Your task to perform on an android device: turn on data saver in the chrome app Image 0: 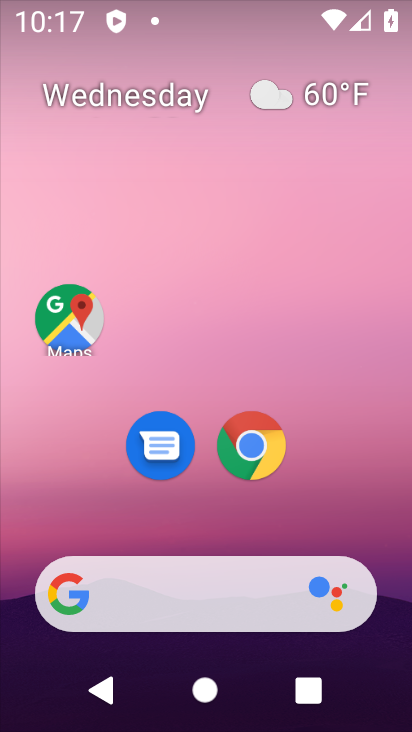
Step 0: click (246, 440)
Your task to perform on an android device: turn on data saver in the chrome app Image 1: 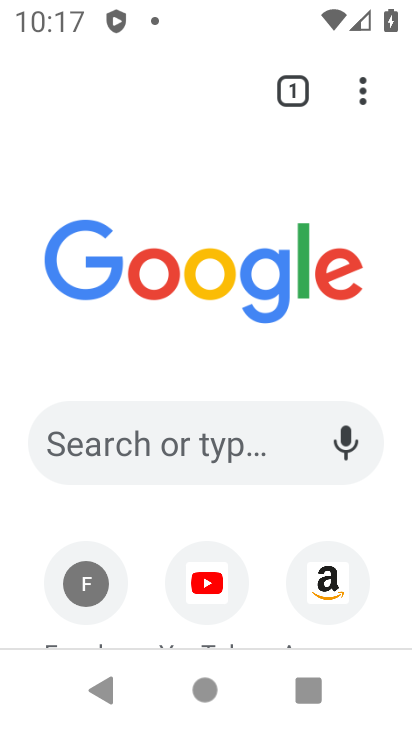
Step 1: drag from (350, 93) to (130, 481)
Your task to perform on an android device: turn on data saver in the chrome app Image 2: 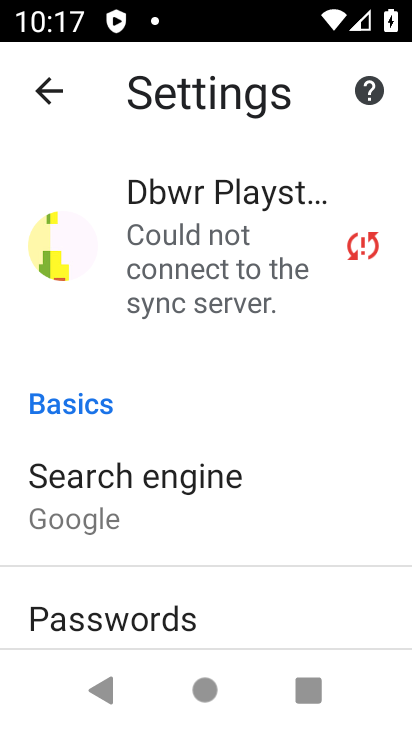
Step 2: drag from (219, 549) to (219, 239)
Your task to perform on an android device: turn on data saver in the chrome app Image 3: 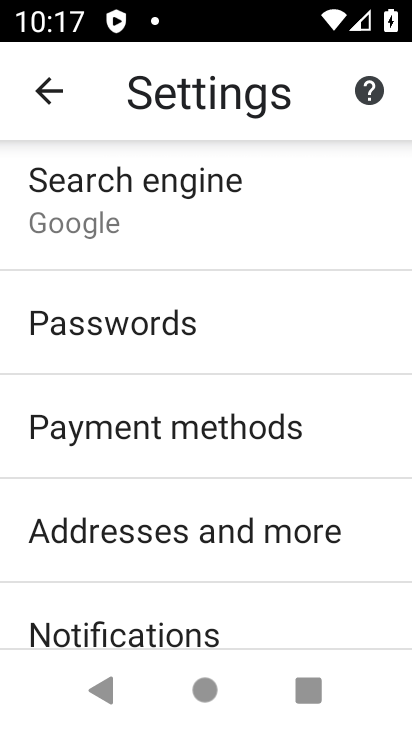
Step 3: drag from (181, 529) to (207, 281)
Your task to perform on an android device: turn on data saver in the chrome app Image 4: 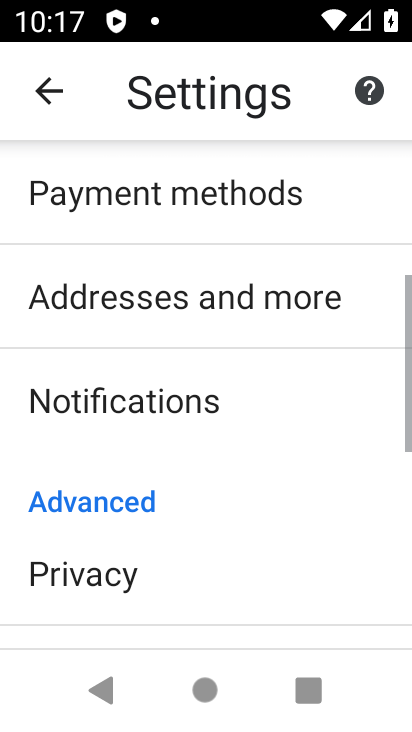
Step 4: drag from (177, 546) to (204, 330)
Your task to perform on an android device: turn on data saver in the chrome app Image 5: 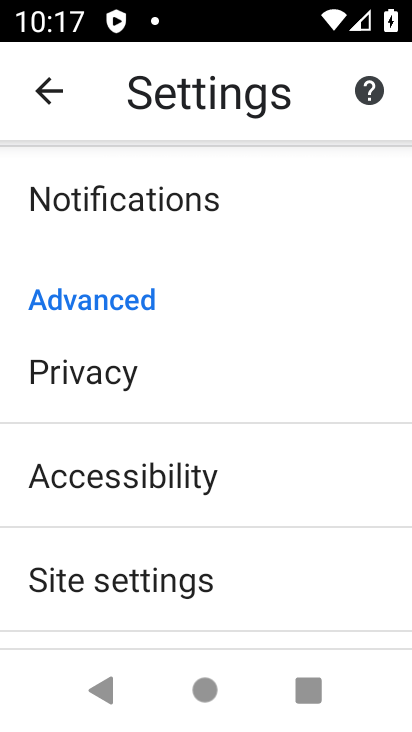
Step 5: drag from (175, 623) to (204, 418)
Your task to perform on an android device: turn on data saver in the chrome app Image 6: 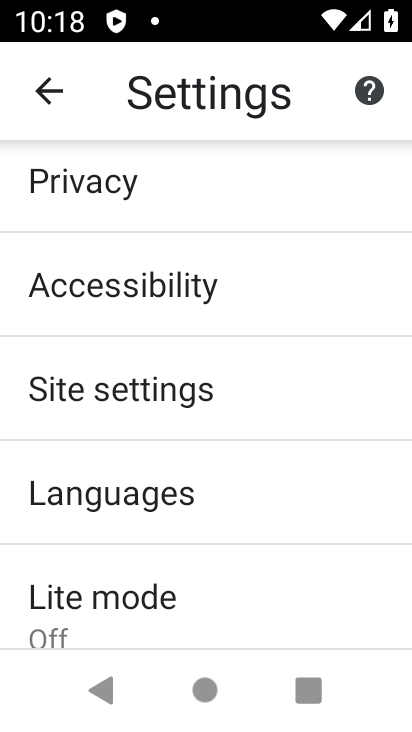
Step 6: click (169, 587)
Your task to perform on an android device: turn on data saver in the chrome app Image 7: 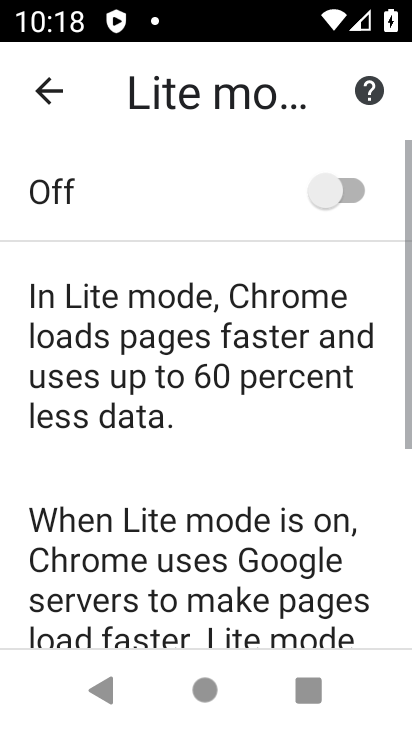
Step 7: click (354, 193)
Your task to perform on an android device: turn on data saver in the chrome app Image 8: 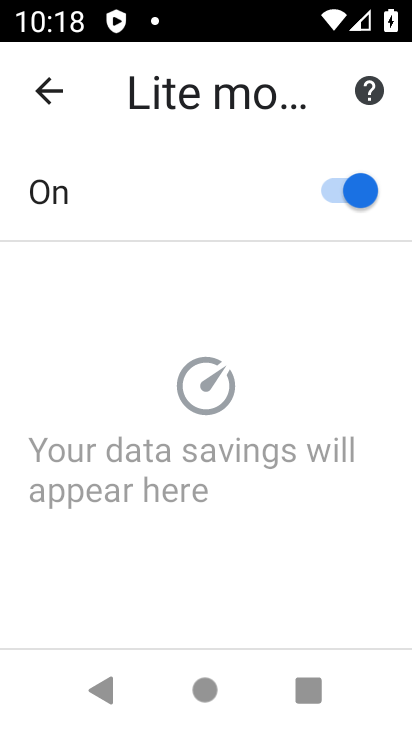
Step 8: task complete